Your task to perform on an android device: turn on bluetooth scan Image 0: 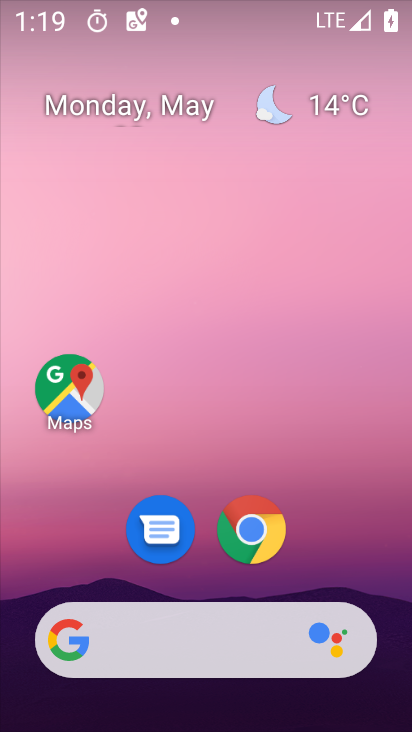
Step 0: drag from (360, 572) to (372, 227)
Your task to perform on an android device: turn on bluetooth scan Image 1: 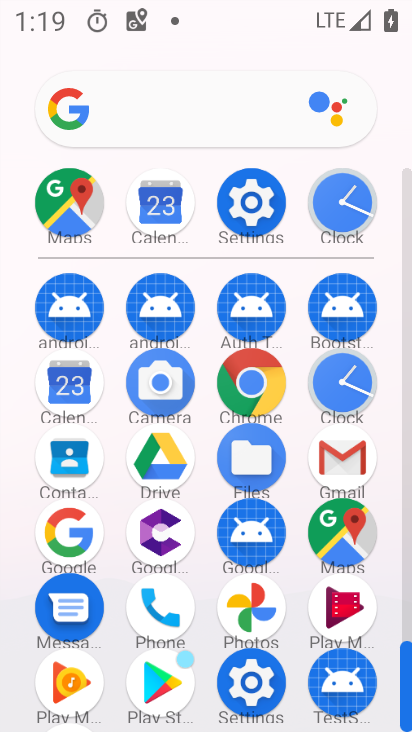
Step 1: click (257, 199)
Your task to perform on an android device: turn on bluetooth scan Image 2: 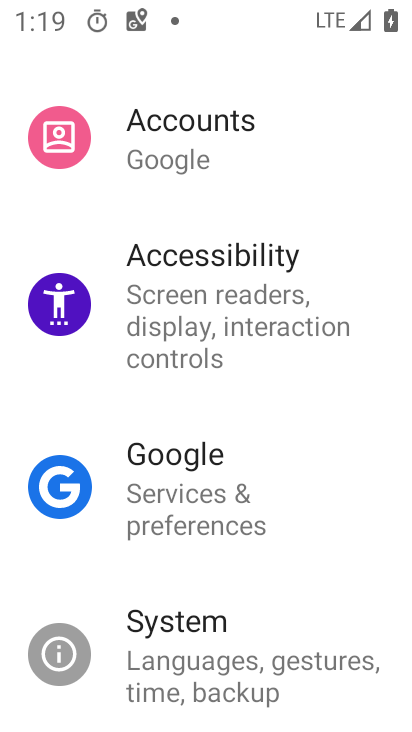
Step 2: drag from (364, 273) to (355, 414)
Your task to perform on an android device: turn on bluetooth scan Image 3: 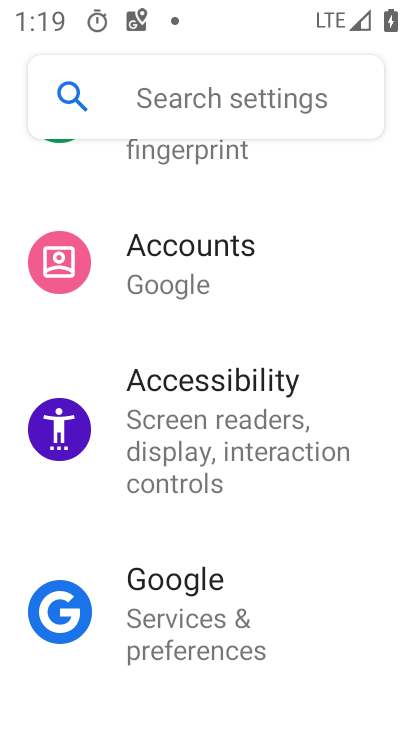
Step 3: drag from (343, 216) to (336, 382)
Your task to perform on an android device: turn on bluetooth scan Image 4: 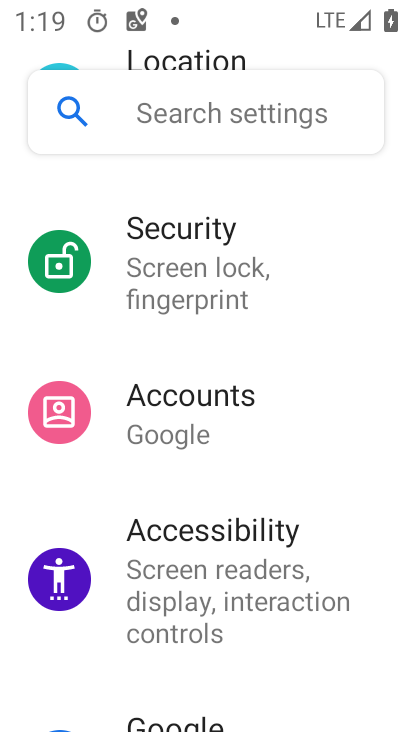
Step 4: drag from (352, 201) to (333, 376)
Your task to perform on an android device: turn on bluetooth scan Image 5: 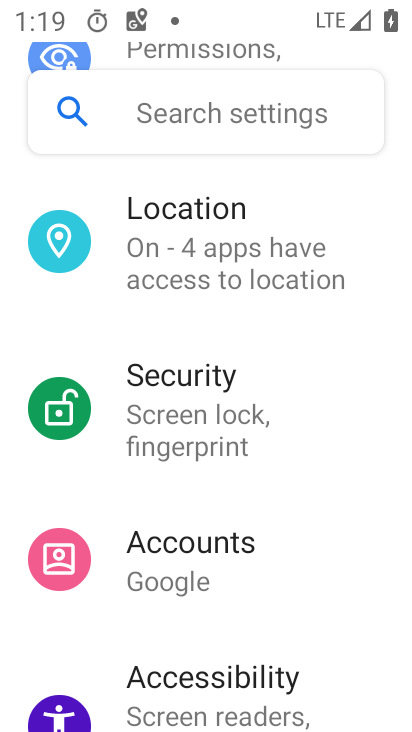
Step 5: drag from (350, 208) to (347, 311)
Your task to perform on an android device: turn on bluetooth scan Image 6: 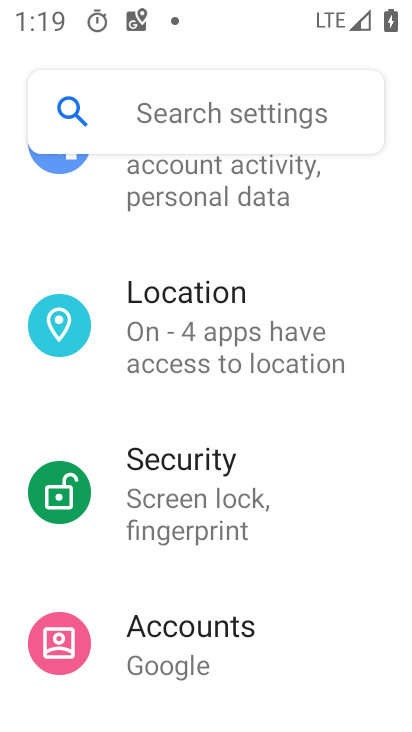
Step 6: drag from (346, 197) to (339, 331)
Your task to perform on an android device: turn on bluetooth scan Image 7: 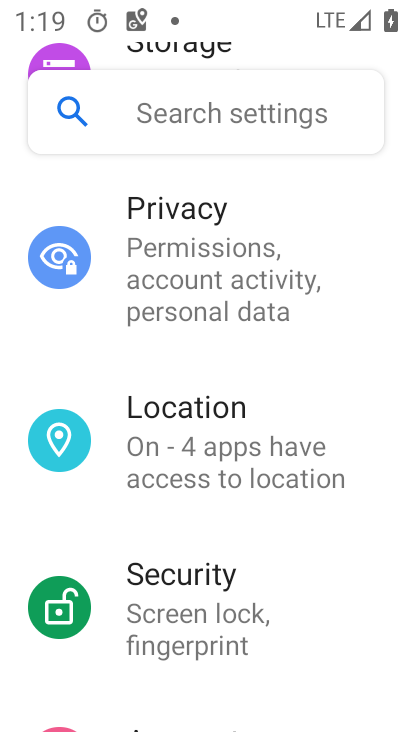
Step 7: drag from (347, 211) to (349, 334)
Your task to perform on an android device: turn on bluetooth scan Image 8: 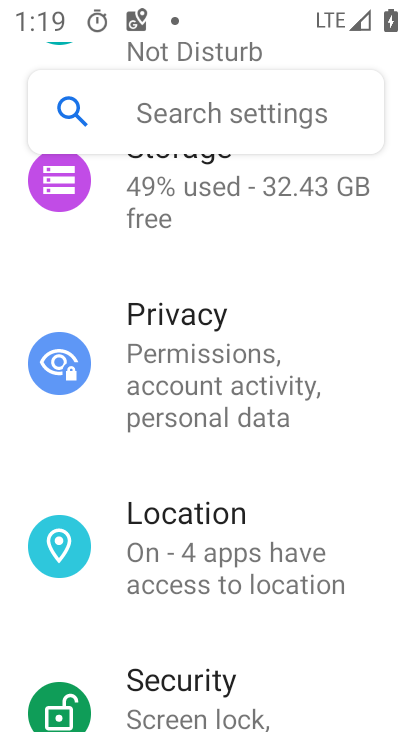
Step 8: click (277, 534)
Your task to perform on an android device: turn on bluetooth scan Image 9: 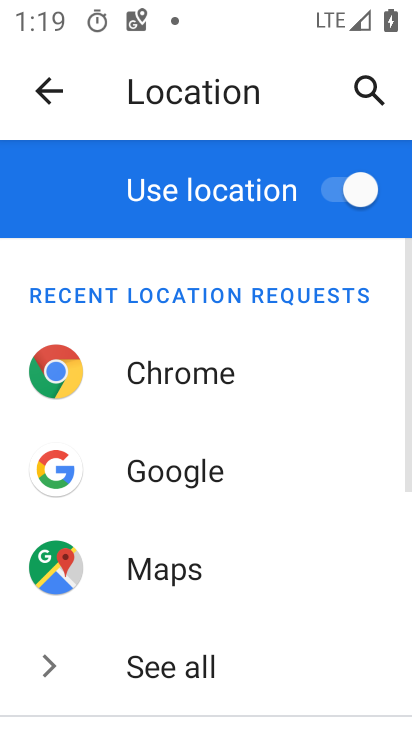
Step 9: drag from (285, 578) to (305, 491)
Your task to perform on an android device: turn on bluetooth scan Image 10: 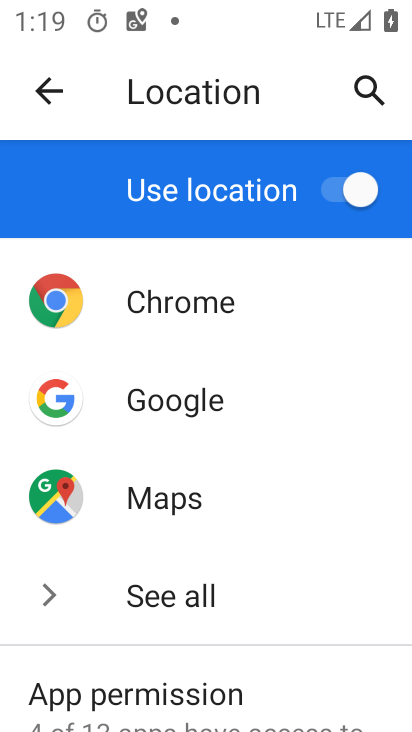
Step 10: drag from (306, 614) to (313, 523)
Your task to perform on an android device: turn on bluetooth scan Image 11: 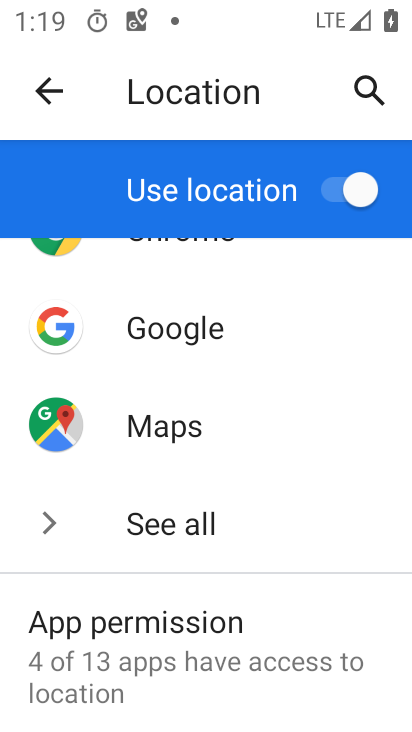
Step 11: drag from (307, 628) to (318, 523)
Your task to perform on an android device: turn on bluetooth scan Image 12: 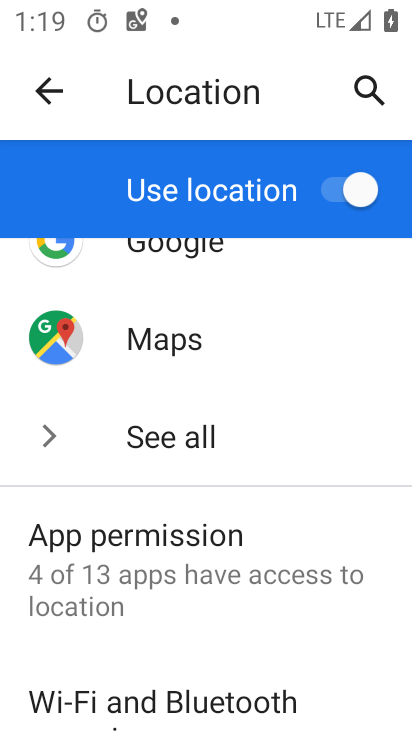
Step 12: drag from (308, 640) to (318, 524)
Your task to perform on an android device: turn on bluetooth scan Image 13: 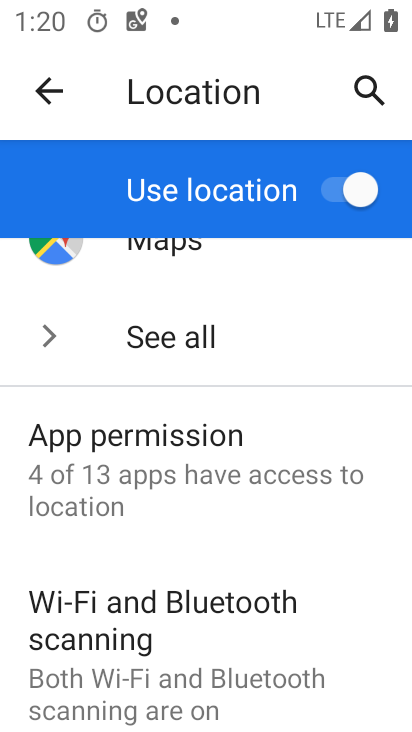
Step 13: drag from (317, 639) to (317, 543)
Your task to perform on an android device: turn on bluetooth scan Image 14: 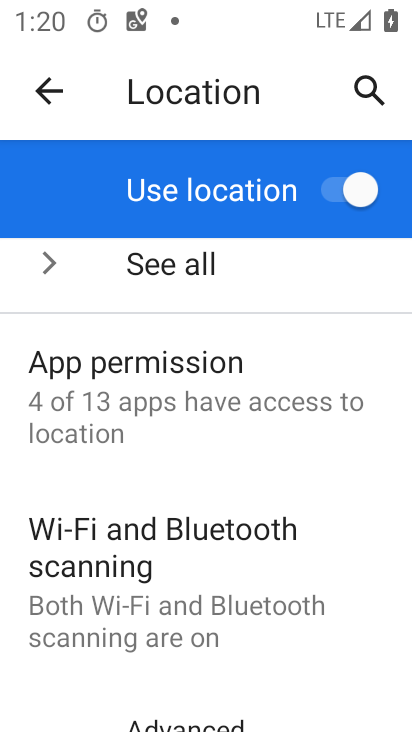
Step 14: drag from (308, 660) to (324, 517)
Your task to perform on an android device: turn on bluetooth scan Image 15: 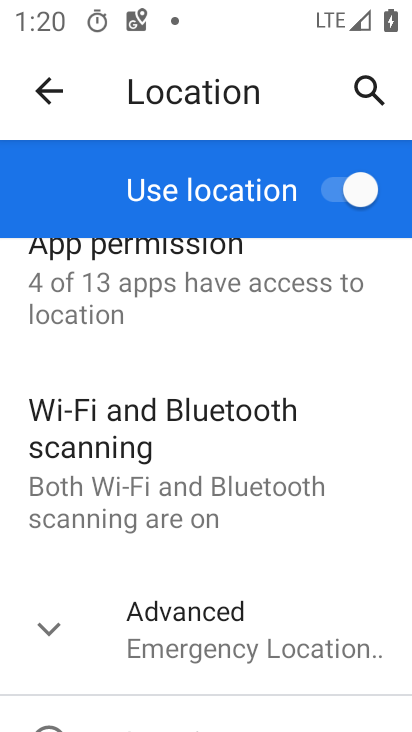
Step 15: click (264, 468)
Your task to perform on an android device: turn on bluetooth scan Image 16: 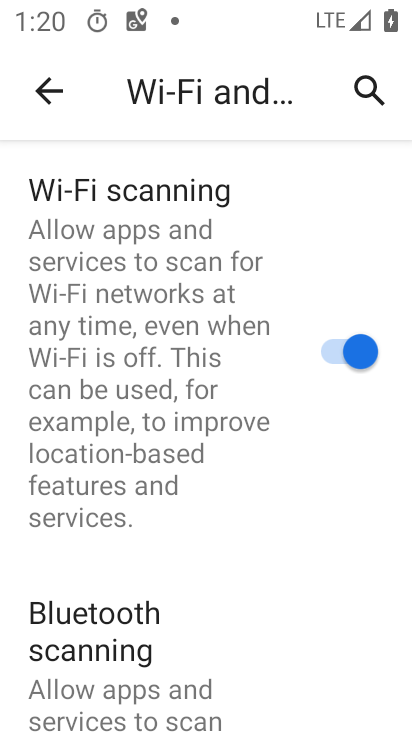
Step 16: task complete